Your task to perform on an android device: add a contact Image 0: 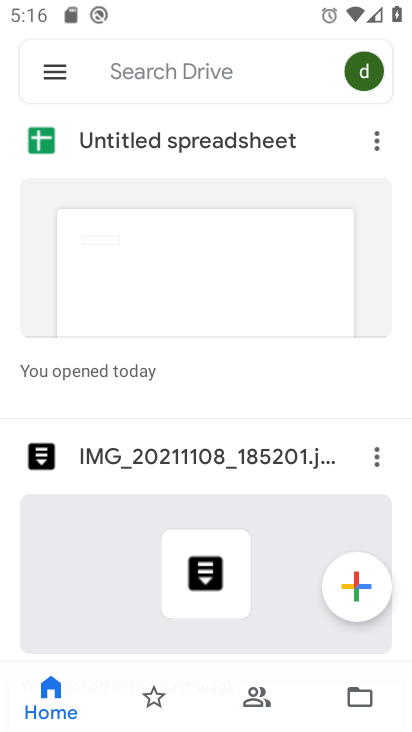
Step 0: press home button
Your task to perform on an android device: add a contact Image 1: 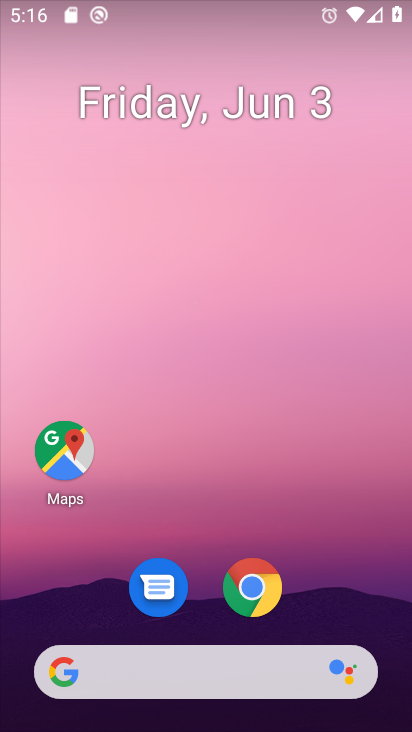
Step 1: drag from (176, 730) to (100, 46)
Your task to perform on an android device: add a contact Image 2: 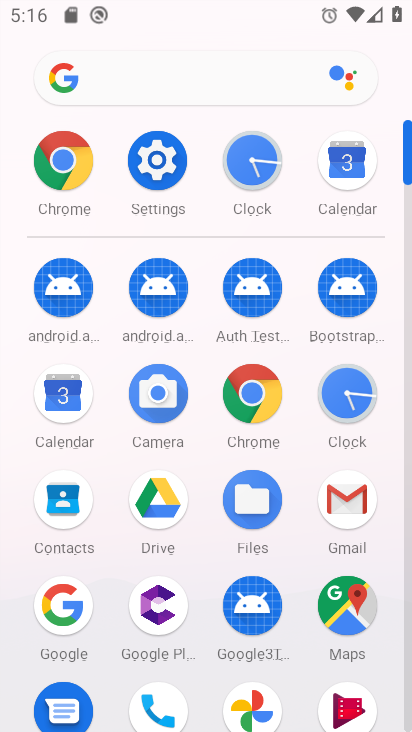
Step 2: click (66, 497)
Your task to perform on an android device: add a contact Image 3: 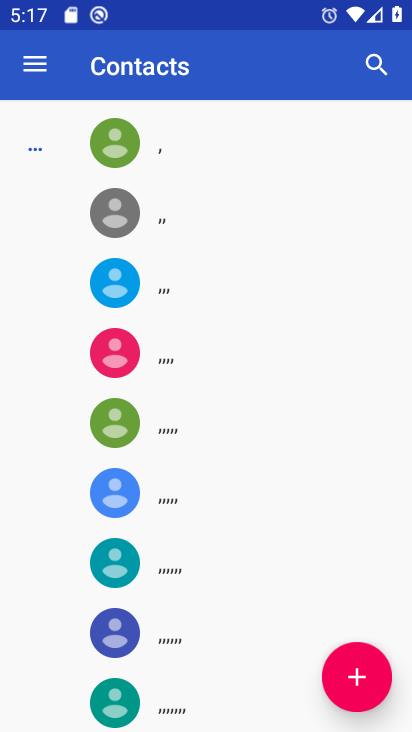
Step 3: click (361, 687)
Your task to perform on an android device: add a contact Image 4: 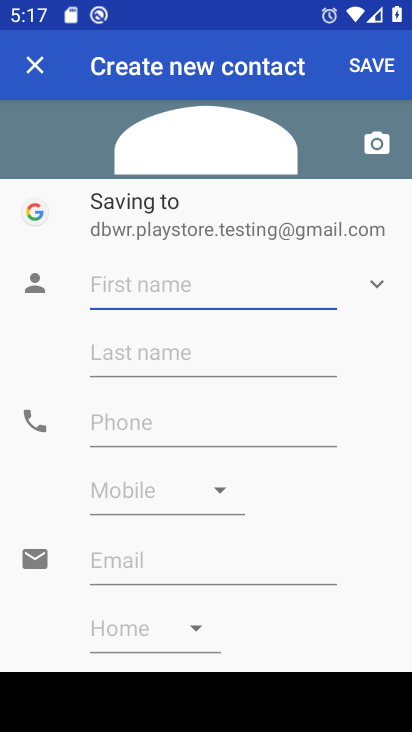
Step 4: type "hahgshgsh"
Your task to perform on an android device: add a contact Image 5: 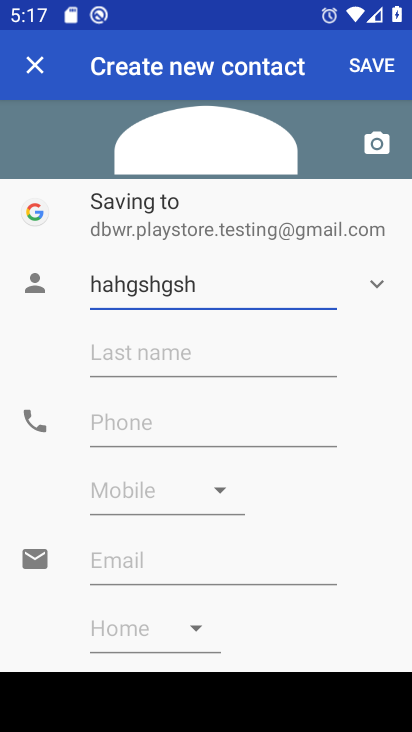
Step 5: click (164, 422)
Your task to perform on an android device: add a contact Image 6: 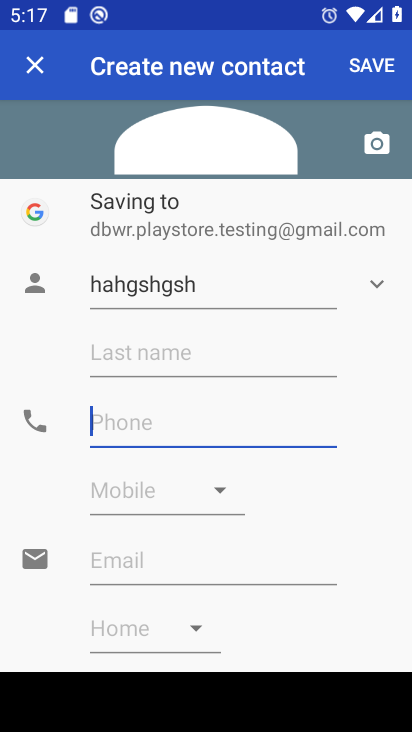
Step 6: type "9827364528"
Your task to perform on an android device: add a contact Image 7: 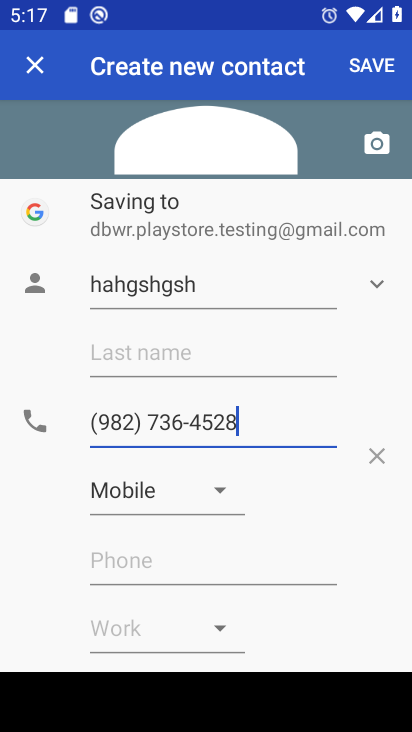
Step 7: click (369, 54)
Your task to perform on an android device: add a contact Image 8: 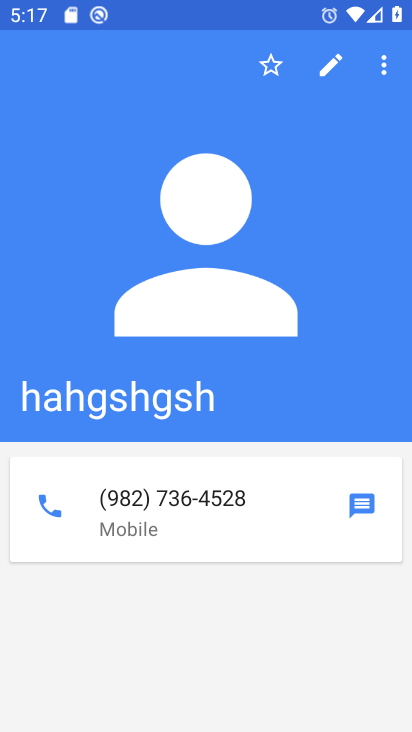
Step 8: task complete